Your task to perform on an android device: Open calendar and show me the first week of next month Image 0: 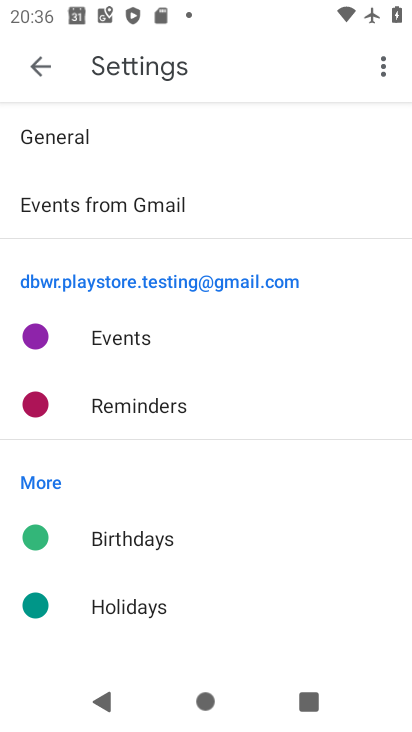
Step 0: press home button
Your task to perform on an android device: Open calendar and show me the first week of next month Image 1: 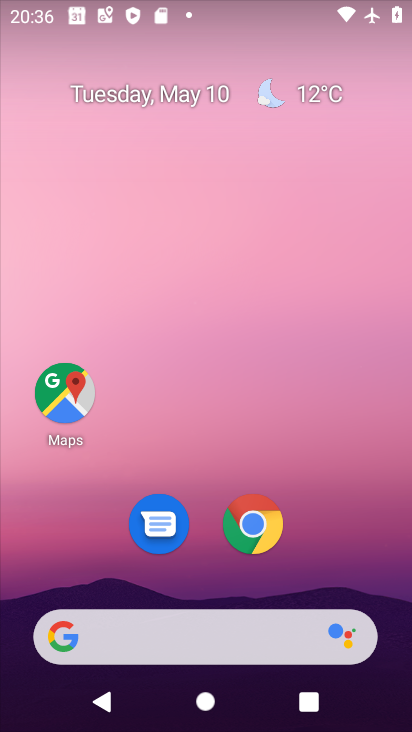
Step 1: drag from (303, 449) to (290, 35)
Your task to perform on an android device: Open calendar and show me the first week of next month Image 2: 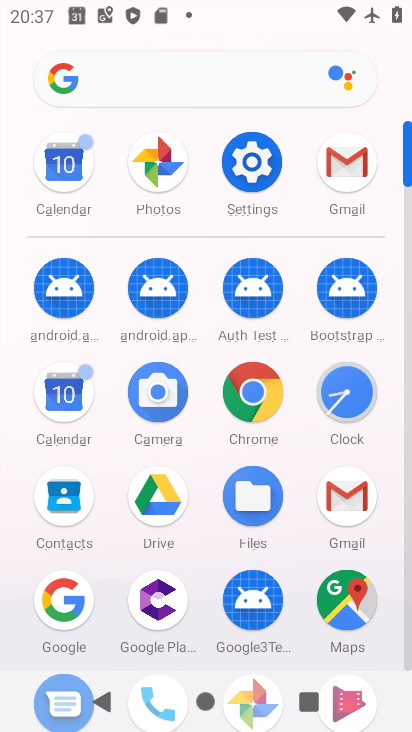
Step 2: click (74, 167)
Your task to perform on an android device: Open calendar and show me the first week of next month Image 3: 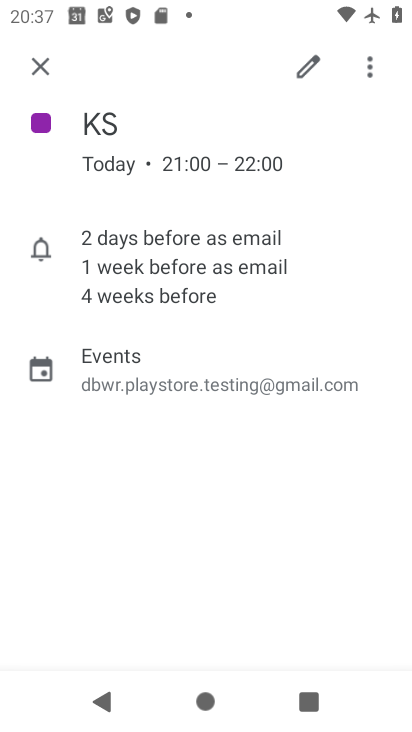
Step 3: click (41, 65)
Your task to perform on an android device: Open calendar and show me the first week of next month Image 4: 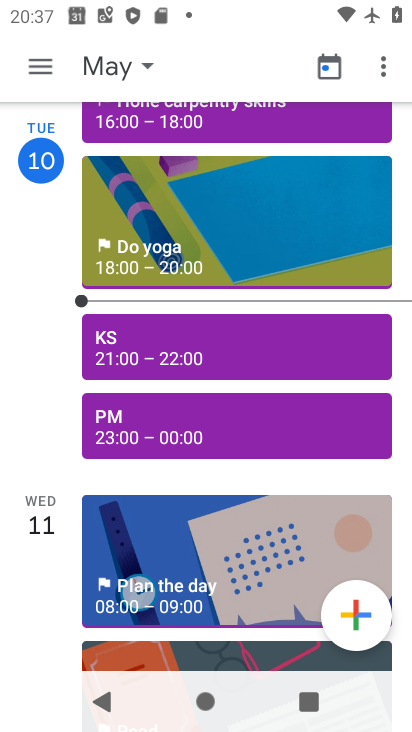
Step 4: click (41, 65)
Your task to perform on an android device: Open calendar and show me the first week of next month Image 5: 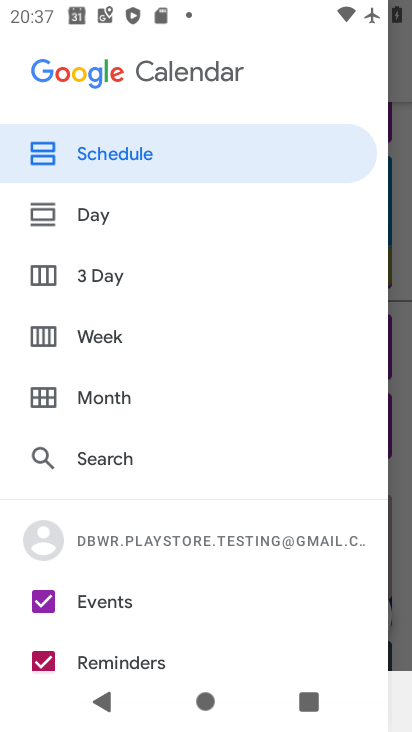
Step 5: click (50, 398)
Your task to perform on an android device: Open calendar and show me the first week of next month Image 6: 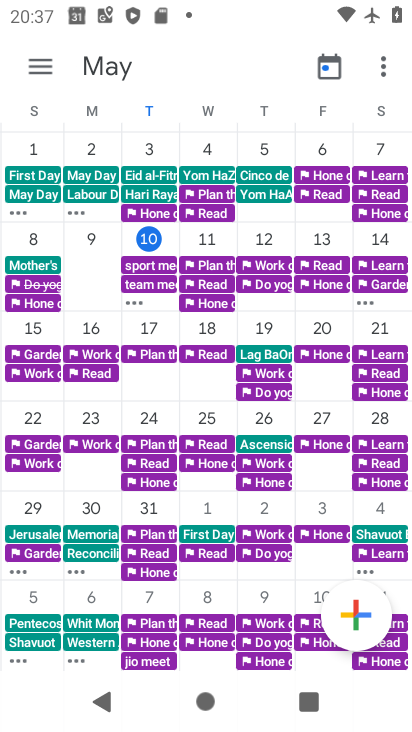
Step 6: drag from (365, 409) to (0, 357)
Your task to perform on an android device: Open calendar and show me the first week of next month Image 7: 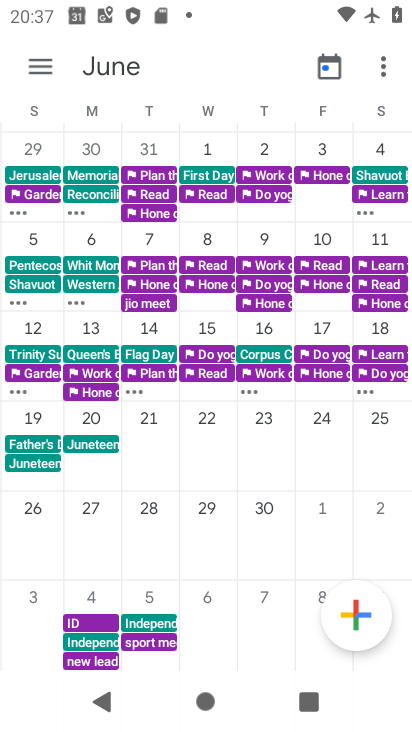
Step 7: click (35, 238)
Your task to perform on an android device: Open calendar and show me the first week of next month Image 8: 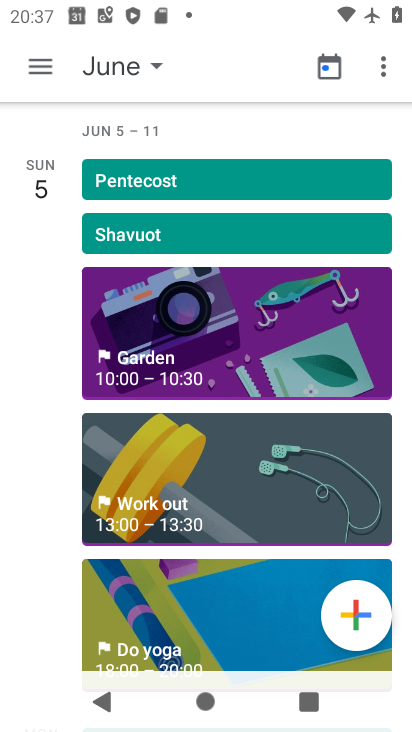
Step 8: click (37, 61)
Your task to perform on an android device: Open calendar and show me the first week of next month Image 9: 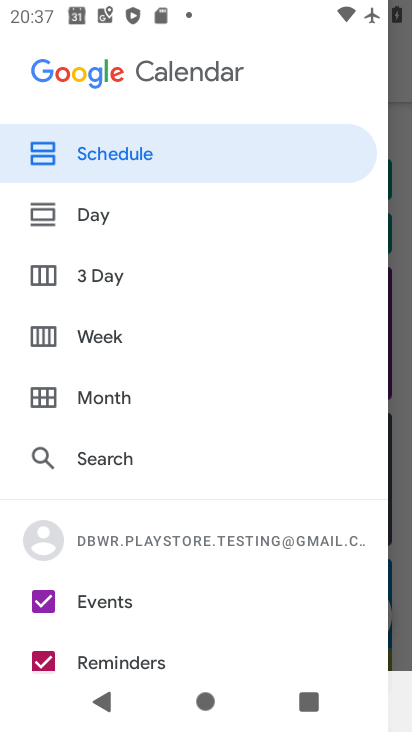
Step 9: click (48, 327)
Your task to perform on an android device: Open calendar and show me the first week of next month Image 10: 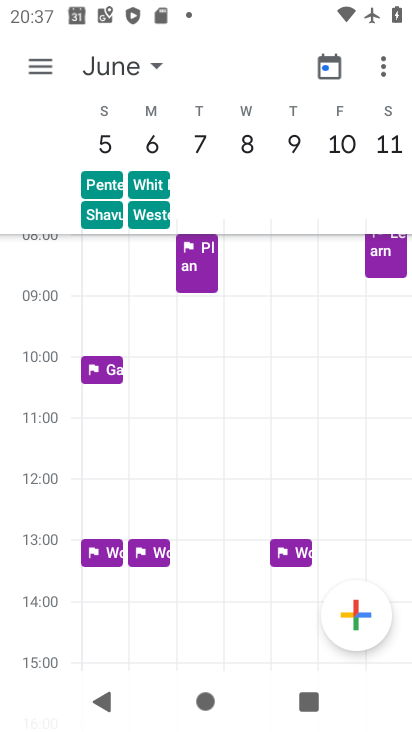
Step 10: task complete